Your task to perform on an android device: Go to Reddit.com Image 0: 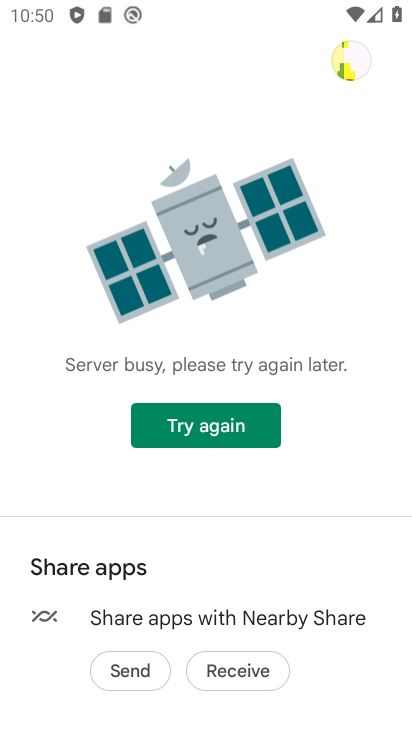
Step 0: press back button
Your task to perform on an android device: Go to Reddit.com Image 1: 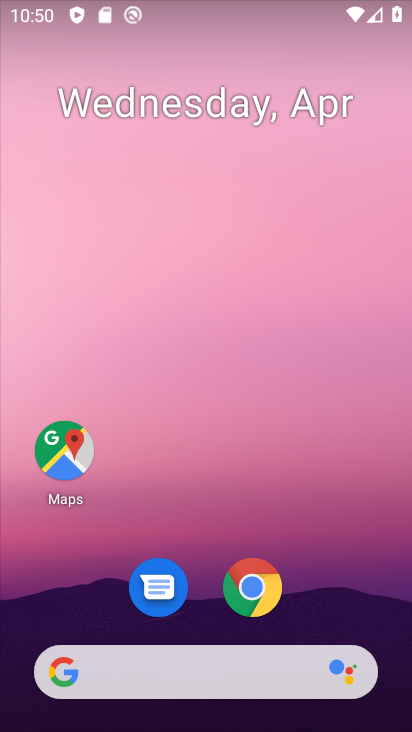
Step 1: press home button
Your task to perform on an android device: Go to Reddit.com Image 2: 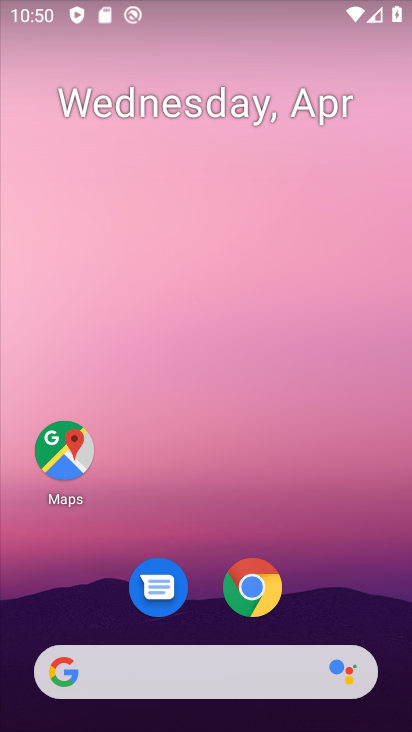
Step 2: click (274, 583)
Your task to perform on an android device: Go to Reddit.com Image 3: 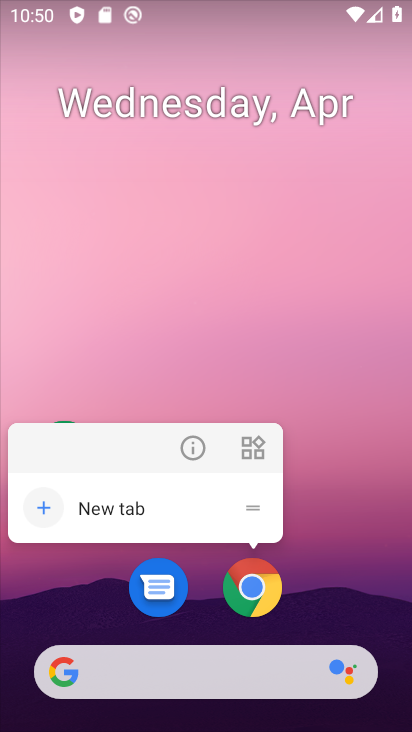
Step 3: click (244, 597)
Your task to perform on an android device: Go to Reddit.com Image 4: 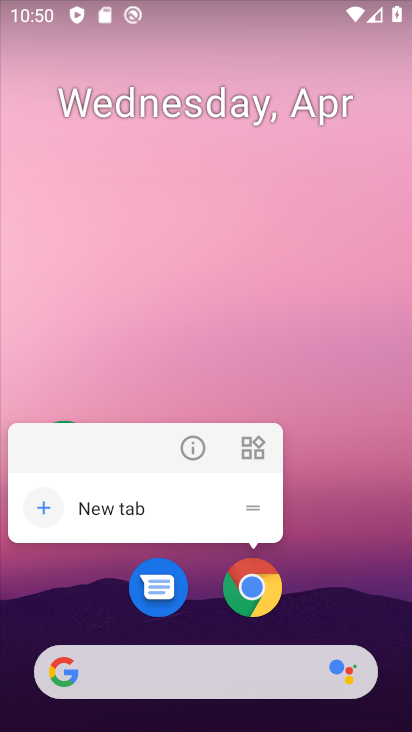
Step 4: click (244, 597)
Your task to perform on an android device: Go to Reddit.com Image 5: 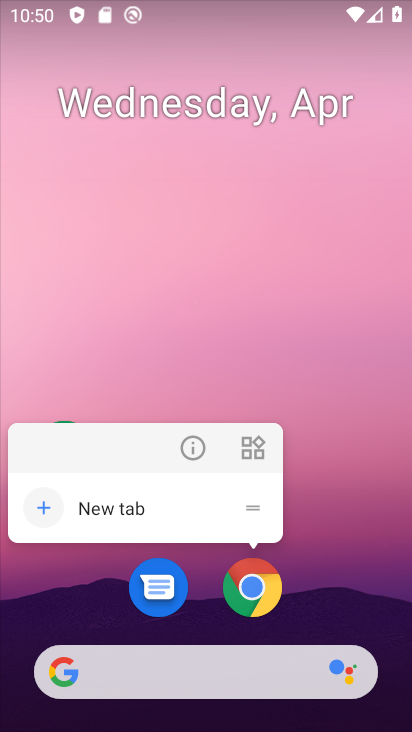
Step 5: click (256, 587)
Your task to perform on an android device: Go to Reddit.com Image 6: 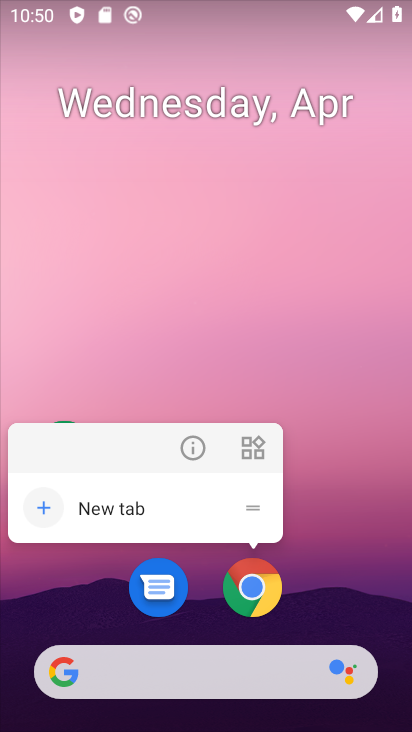
Step 6: click (254, 588)
Your task to perform on an android device: Go to Reddit.com Image 7: 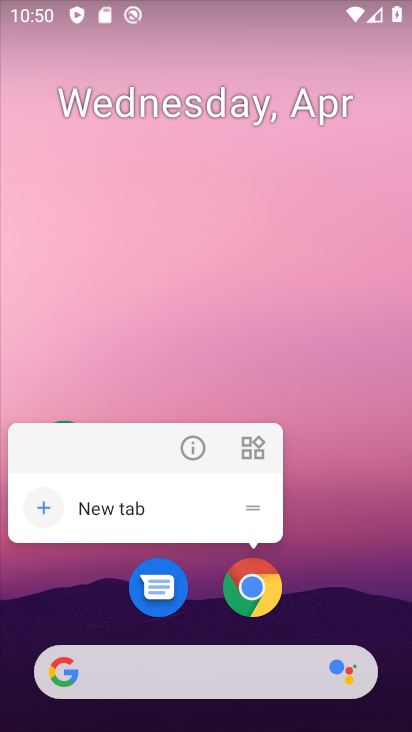
Step 7: click (247, 601)
Your task to perform on an android device: Go to Reddit.com Image 8: 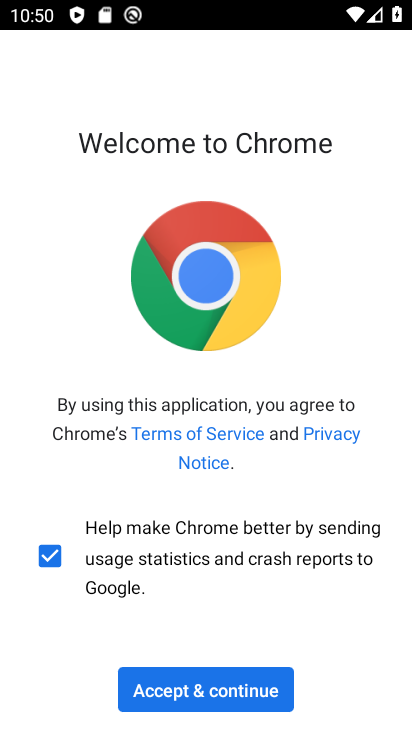
Step 8: click (193, 690)
Your task to perform on an android device: Go to Reddit.com Image 9: 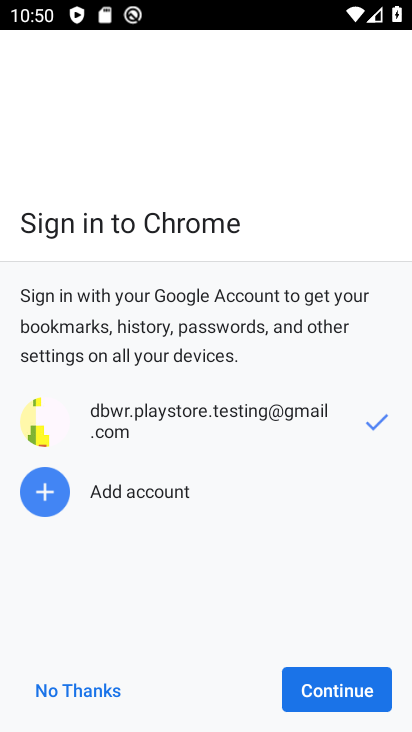
Step 9: click (355, 699)
Your task to perform on an android device: Go to Reddit.com Image 10: 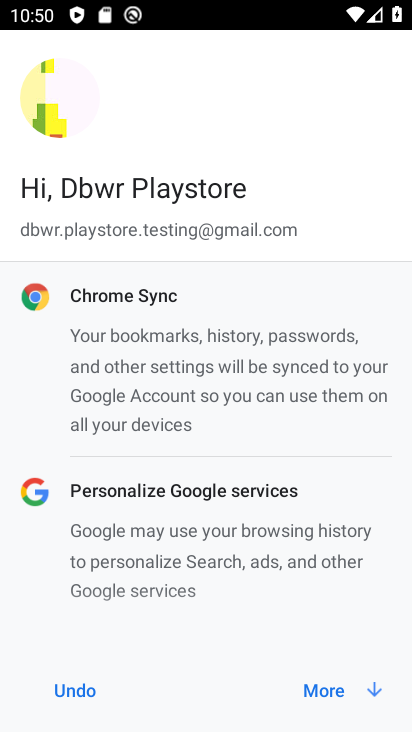
Step 10: click (350, 695)
Your task to perform on an android device: Go to Reddit.com Image 11: 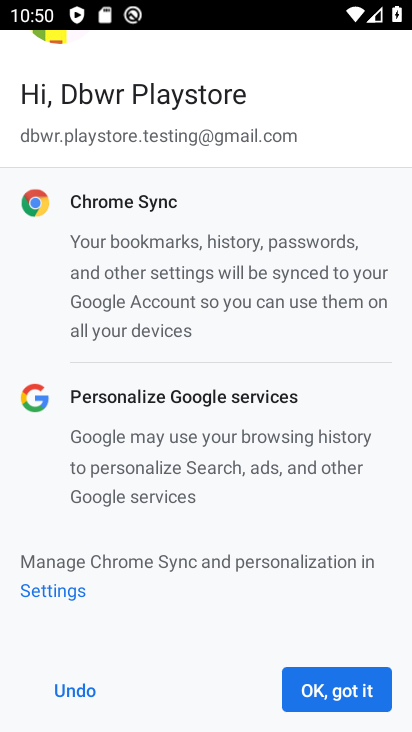
Step 11: click (348, 692)
Your task to perform on an android device: Go to Reddit.com Image 12: 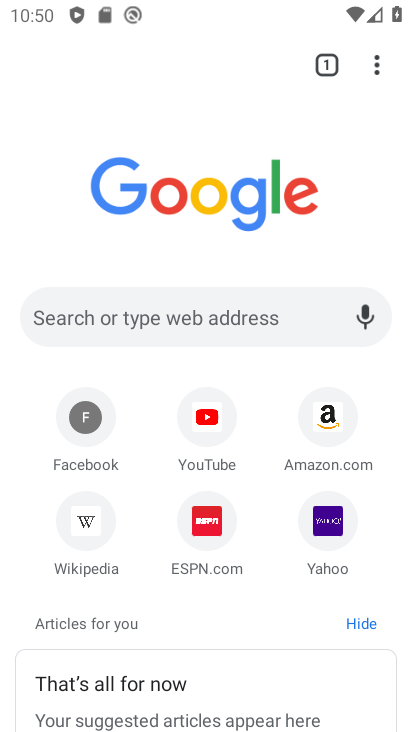
Step 12: click (177, 317)
Your task to perform on an android device: Go to Reddit.com Image 13: 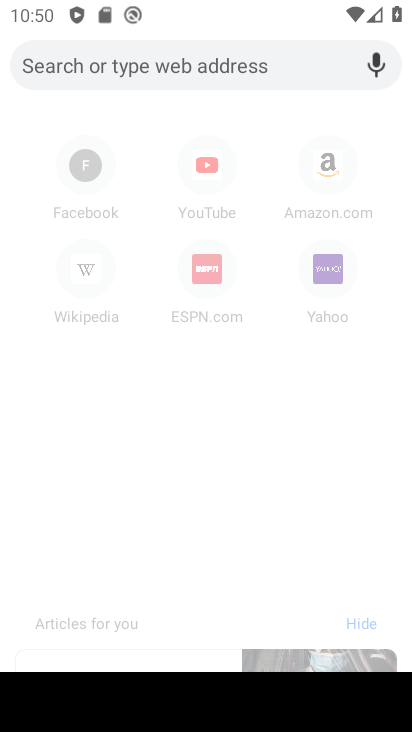
Step 13: type "reddit.com"
Your task to perform on an android device: Go to Reddit.com Image 14: 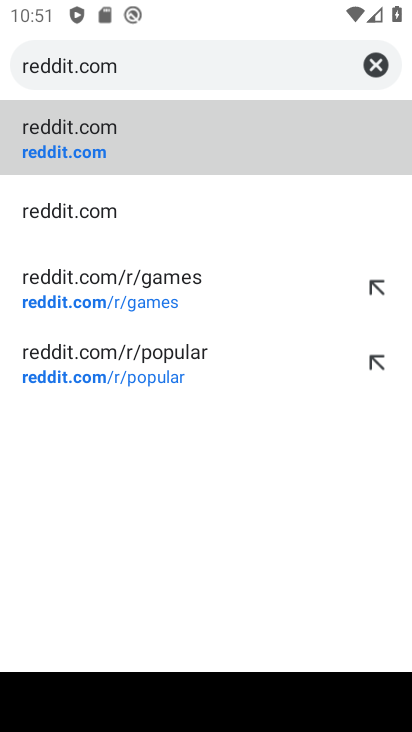
Step 14: click (175, 141)
Your task to perform on an android device: Go to Reddit.com Image 15: 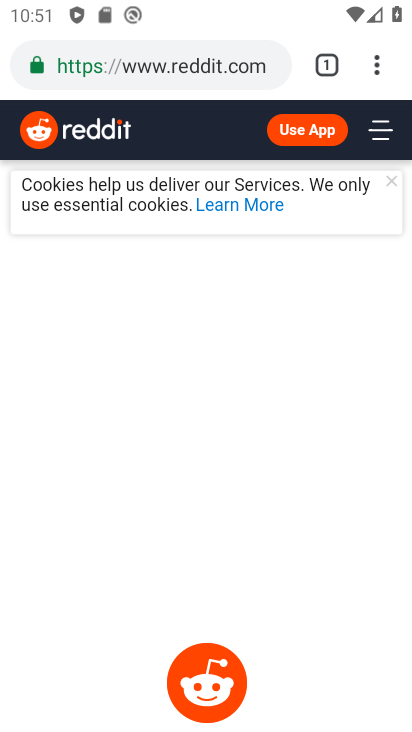
Step 15: task complete